Your task to perform on an android device: Show me productivity apps on the Play Store Image 0: 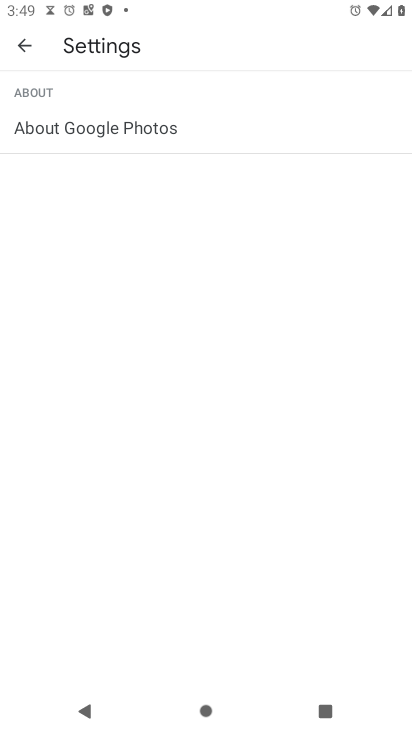
Step 0: press back button
Your task to perform on an android device: Show me productivity apps on the Play Store Image 1: 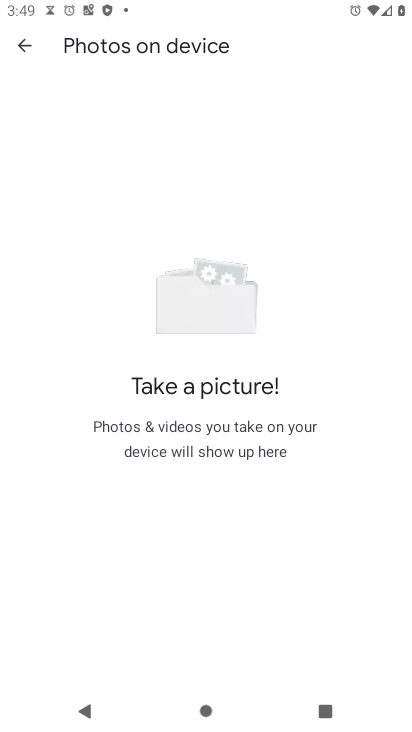
Step 1: press back button
Your task to perform on an android device: Show me productivity apps on the Play Store Image 2: 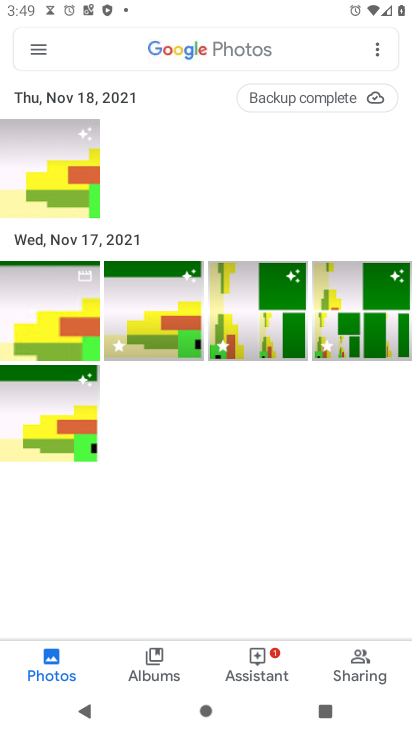
Step 2: press back button
Your task to perform on an android device: Show me productivity apps on the Play Store Image 3: 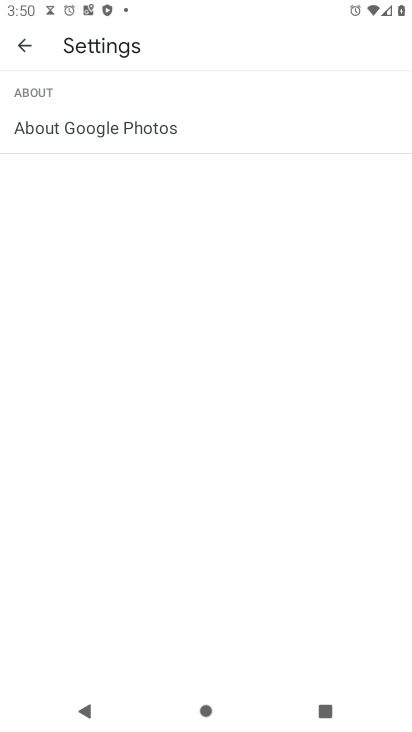
Step 3: press home button
Your task to perform on an android device: Show me productivity apps on the Play Store Image 4: 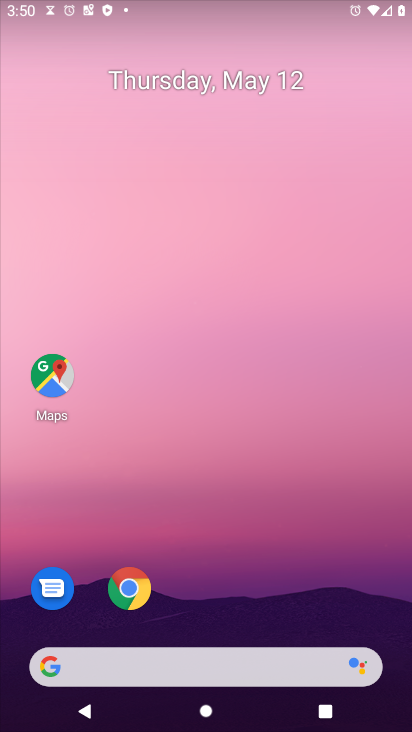
Step 4: drag from (265, 540) to (181, 75)
Your task to perform on an android device: Show me productivity apps on the Play Store Image 5: 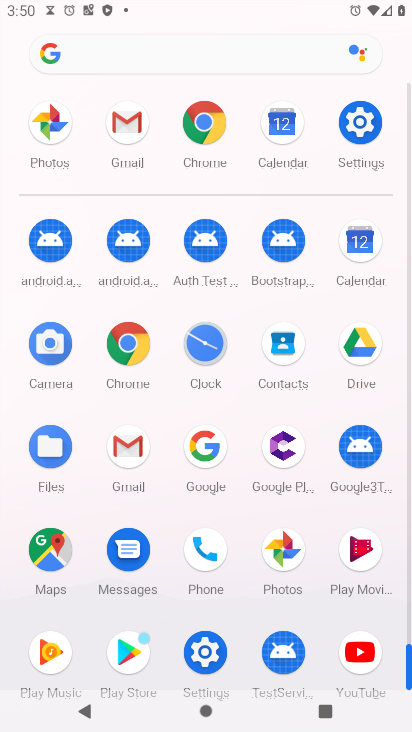
Step 5: drag from (6, 455) to (10, 160)
Your task to perform on an android device: Show me productivity apps on the Play Store Image 6: 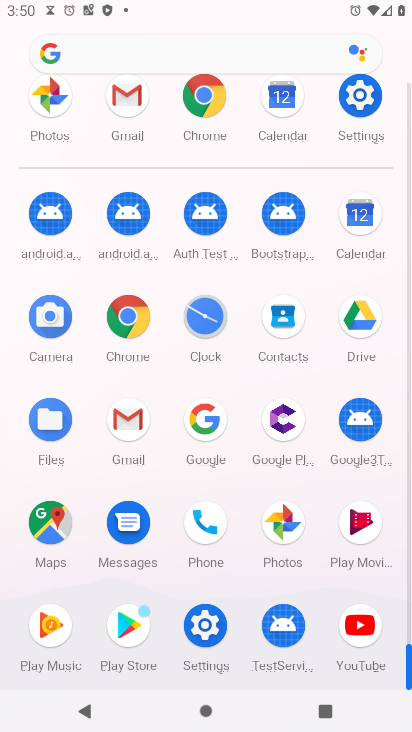
Step 6: click (131, 630)
Your task to perform on an android device: Show me productivity apps on the Play Store Image 7: 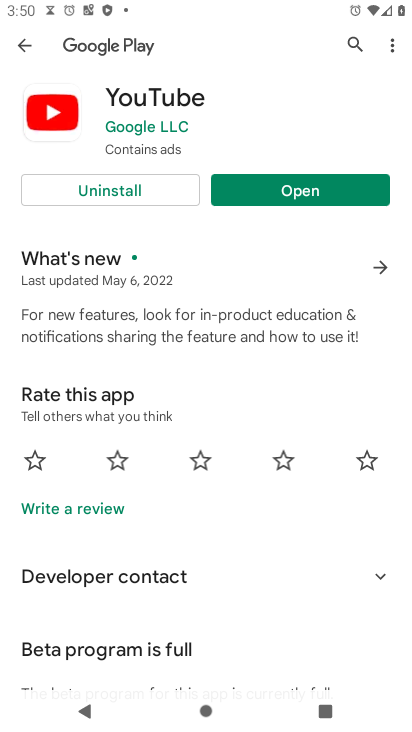
Step 7: press back button
Your task to perform on an android device: Show me productivity apps on the Play Store Image 8: 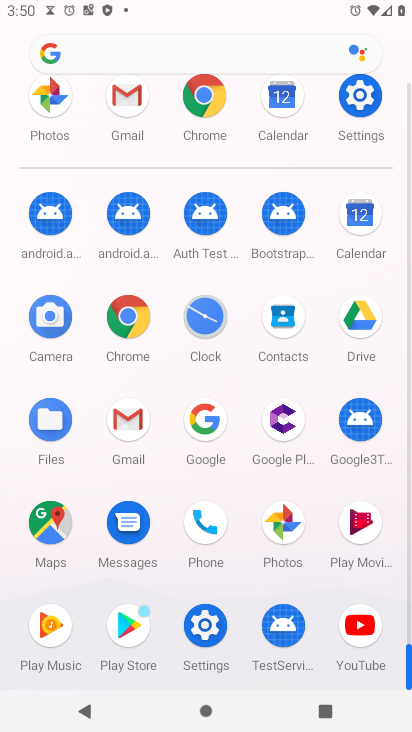
Step 8: click (135, 624)
Your task to perform on an android device: Show me productivity apps on the Play Store Image 9: 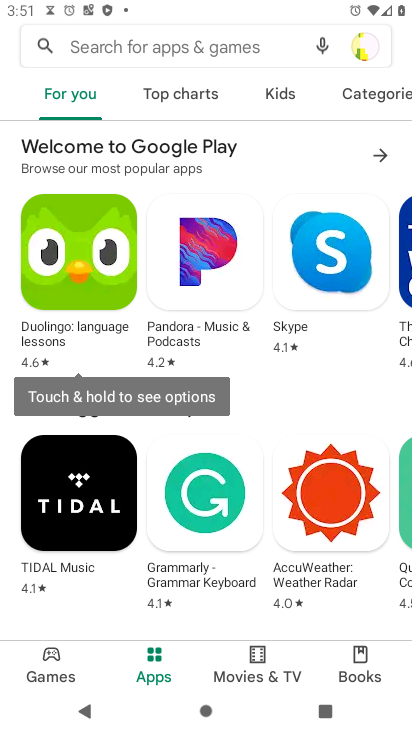
Step 9: click (358, 86)
Your task to perform on an android device: Show me productivity apps on the Play Store Image 10: 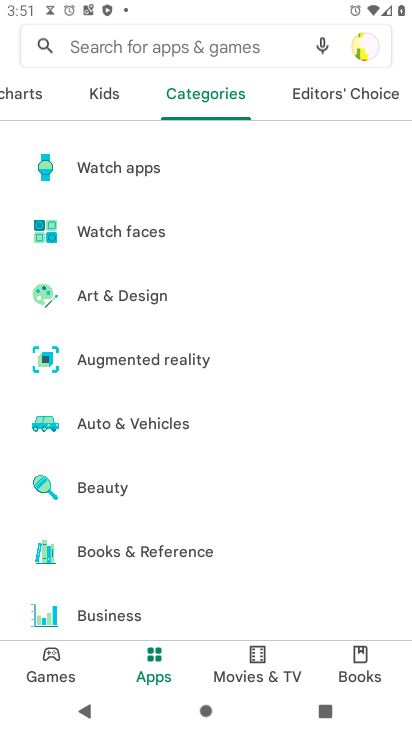
Step 10: drag from (256, 513) to (276, 112)
Your task to perform on an android device: Show me productivity apps on the Play Store Image 11: 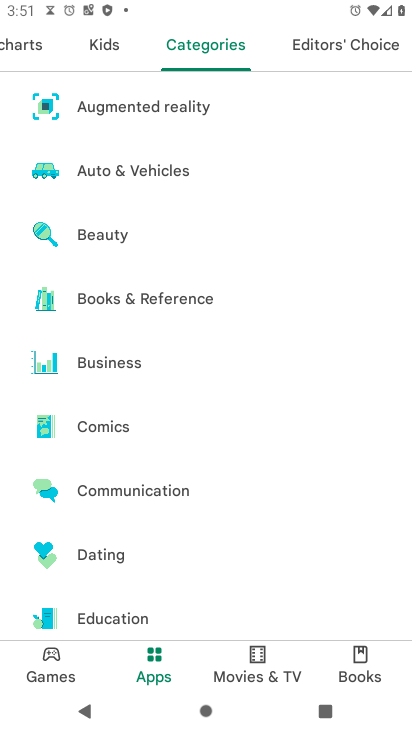
Step 11: drag from (259, 487) to (249, 130)
Your task to perform on an android device: Show me productivity apps on the Play Store Image 12: 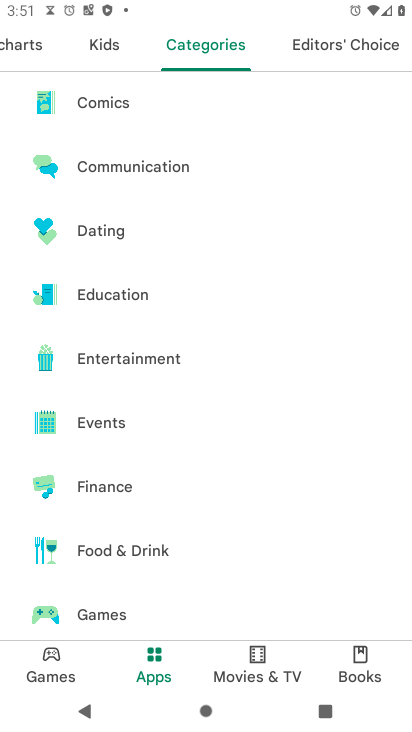
Step 12: drag from (241, 517) to (246, 191)
Your task to perform on an android device: Show me productivity apps on the Play Store Image 13: 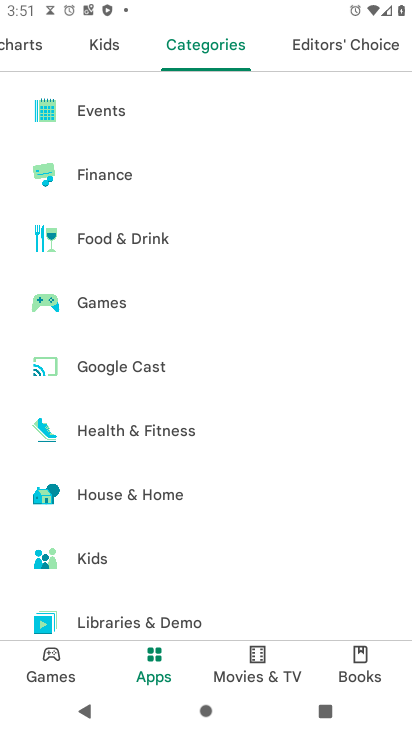
Step 13: drag from (252, 572) to (268, 215)
Your task to perform on an android device: Show me productivity apps on the Play Store Image 14: 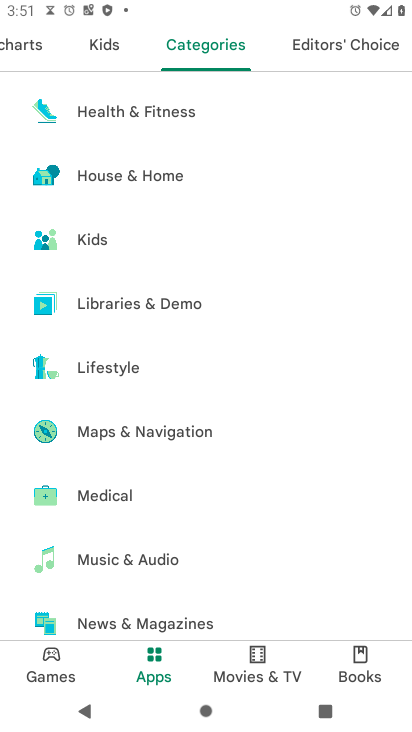
Step 14: drag from (277, 475) to (277, 134)
Your task to perform on an android device: Show me productivity apps on the Play Store Image 15: 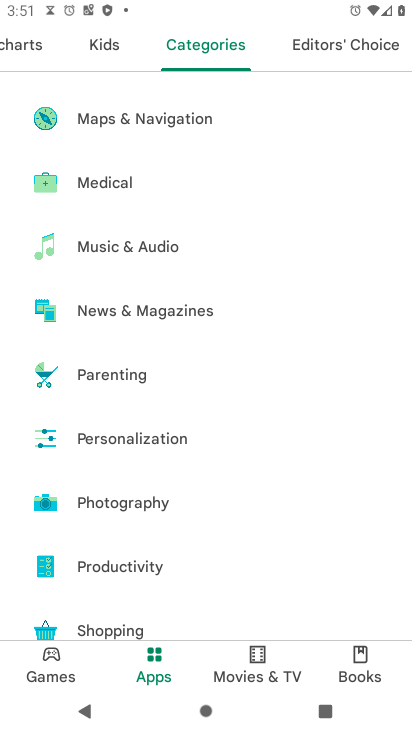
Step 15: drag from (231, 549) to (242, 487)
Your task to perform on an android device: Show me productivity apps on the Play Store Image 16: 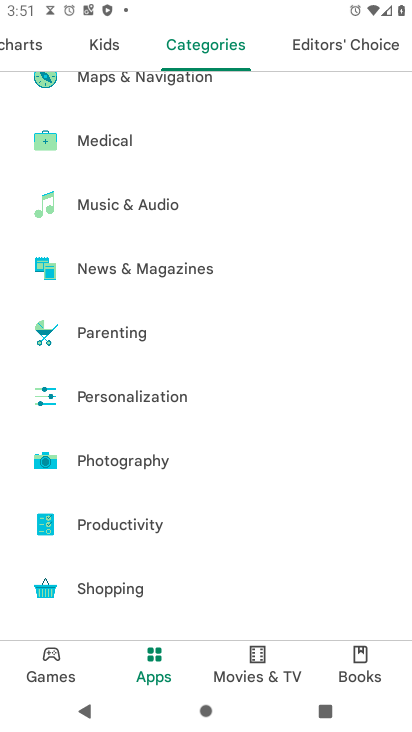
Step 16: click (141, 517)
Your task to perform on an android device: Show me productivity apps on the Play Store Image 17: 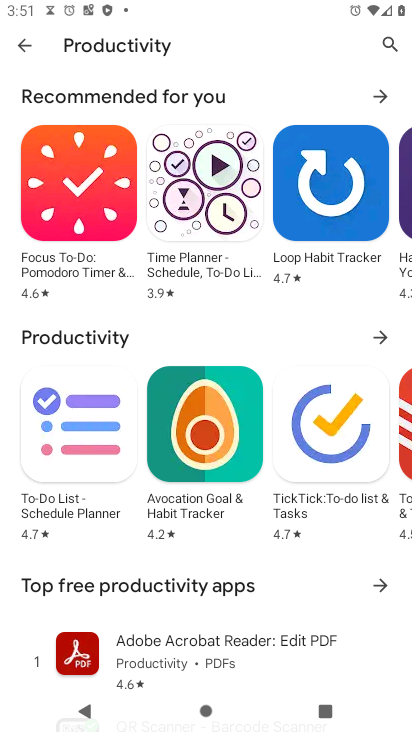
Step 17: task complete